Your task to perform on an android device: check android version Image 0: 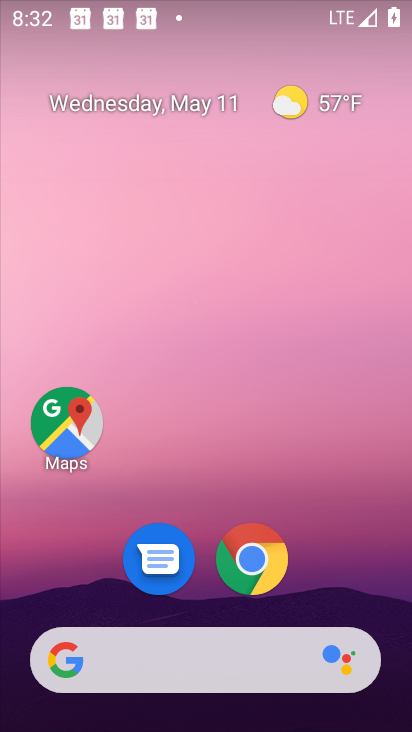
Step 0: press home button
Your task to perform on an android device: check android version Image 1: 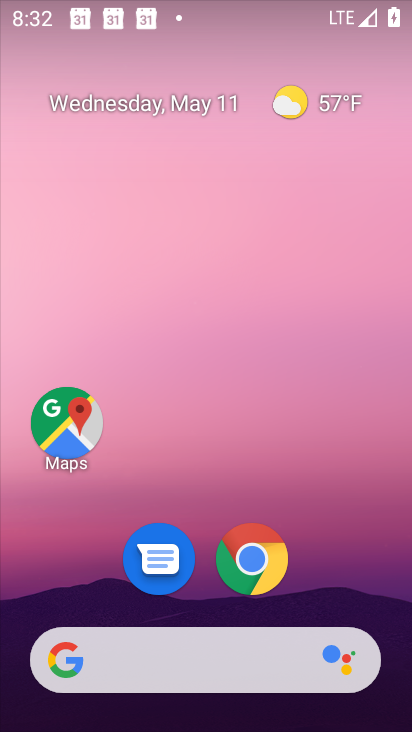
Step 1: drag from (324, 597) to (335, 25)
Your task to perform on an android device: check android version Image 2: 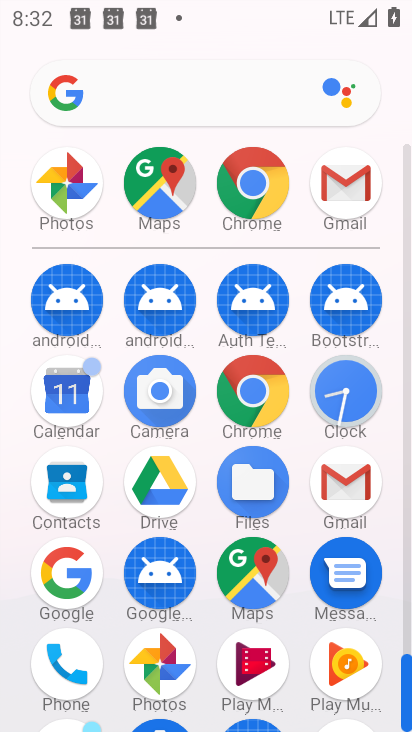
Step 2: drag from (401, 704) to (155, 726)
Your task to perform on an android device: check android version Image 3: 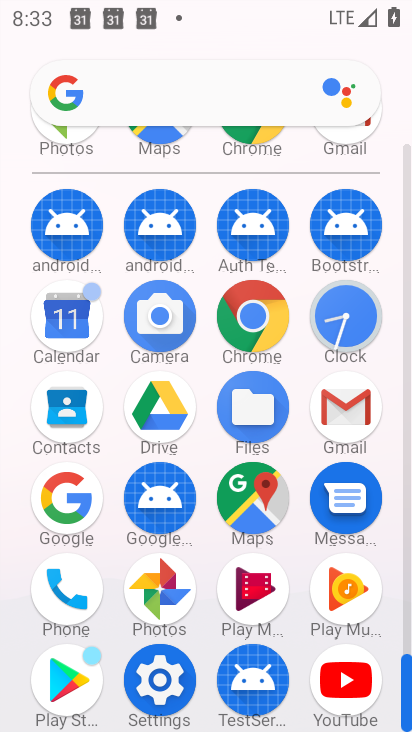
Step 3: click (158, 692)
Your task to perform on an android device: check android version Image 4: 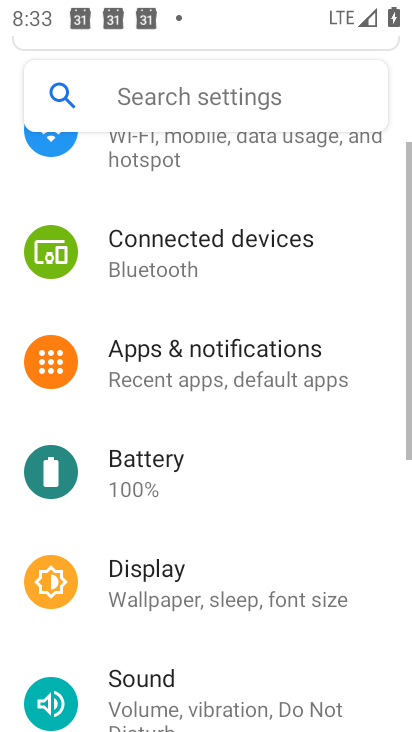
Step 4: click (103, 98)
Your task to perform on an android device: check android version Image 5: 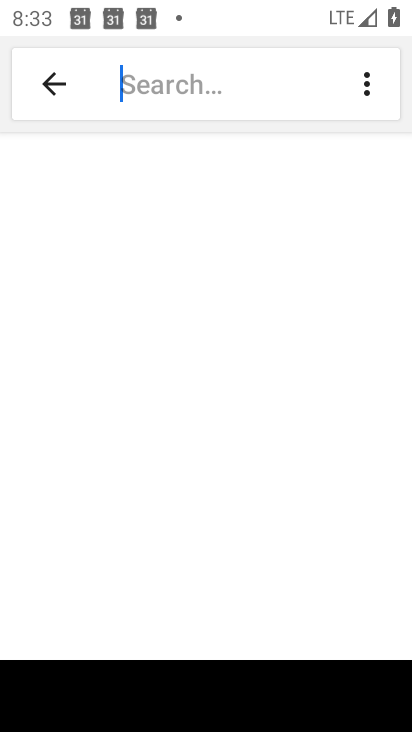
Step 5: click (49, 71)
Your task to perform on an android device: check android version Image 6: 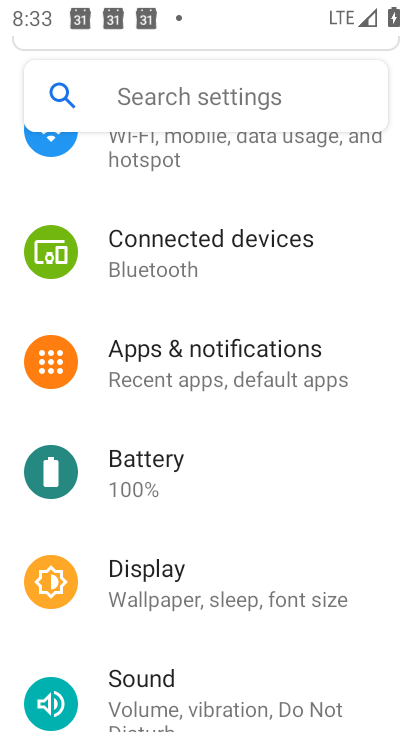
Step 6: drag from (211, 639) to (213, 117)
Your task to perform on an android device: check android version Image 7: 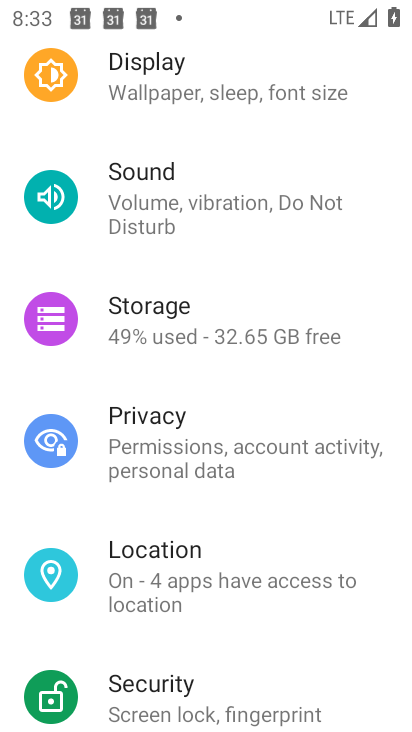
Step 7: drag from (251, 680) to (329, 0)
Your task to perform on an android device: check android version Image 8: 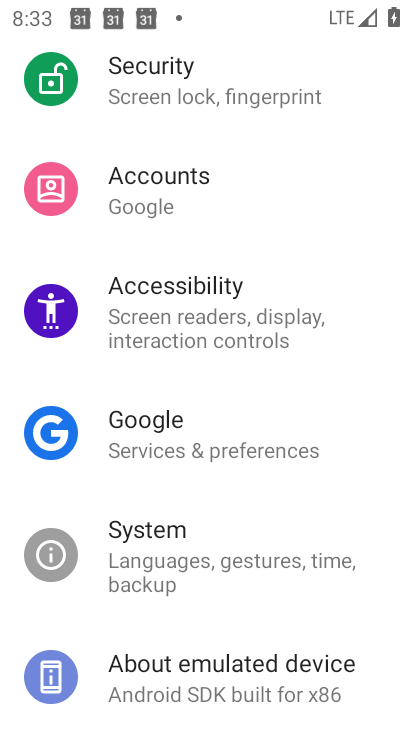
Step 8: click (226, 661)
Your task to perform on an android device: check android version Image 9: 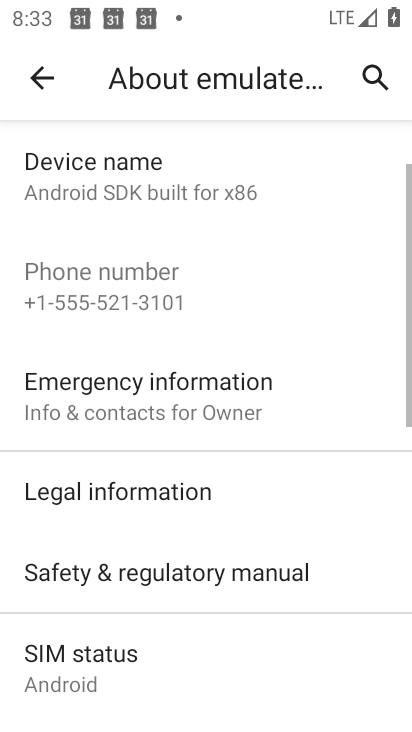
Step 9: drag from (218, 587) to (229, 433)
Your task to perform on an android device: check android version Image 10: 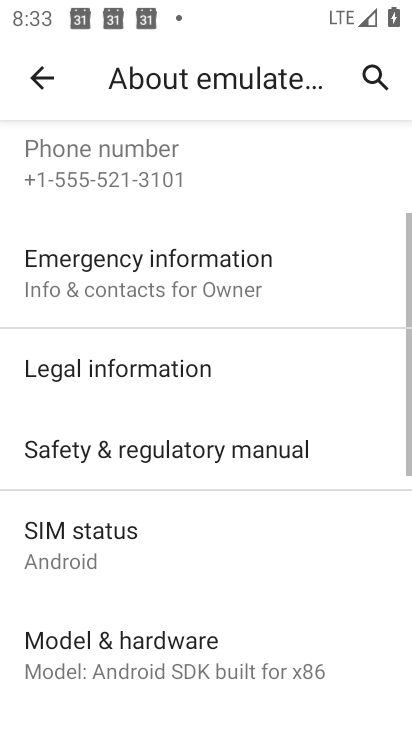
Step 10: drag from (221, 617) to (232, 386)
Your task to perform on an android device: check android version Image 11: 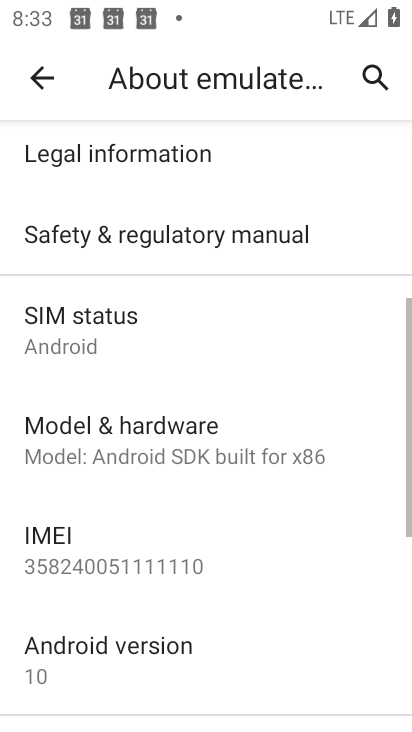
Step 11: click (236, 635)
Your task to perform on an android device: check android version Image 12: 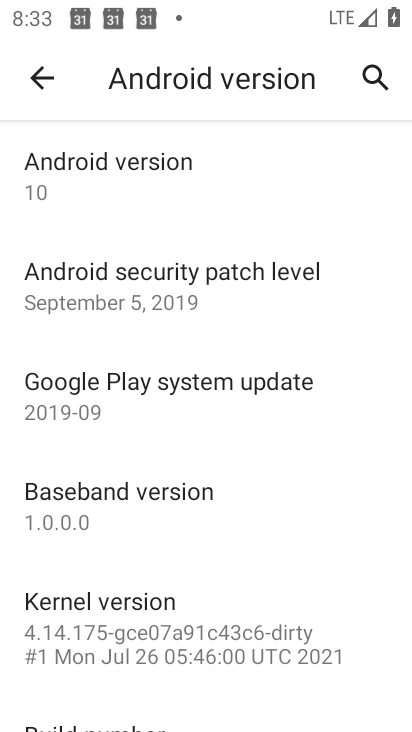
Step 12: click (172, 180)
Your task to perform on an android device: check android version Image 13: 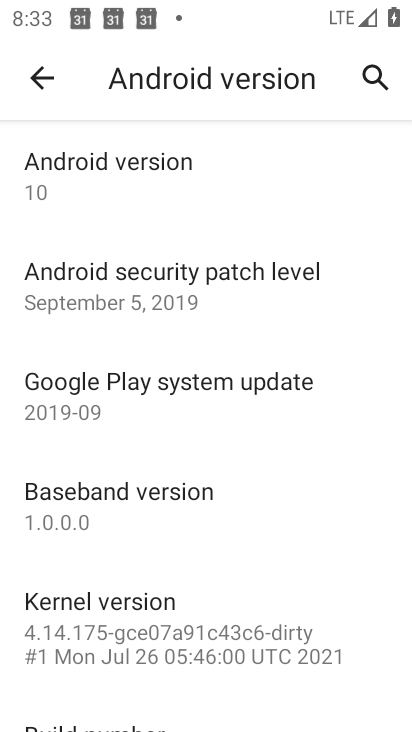
Step 13: task complete